Your task to perform on an android device: Find coffee shops on Maps Image 0: 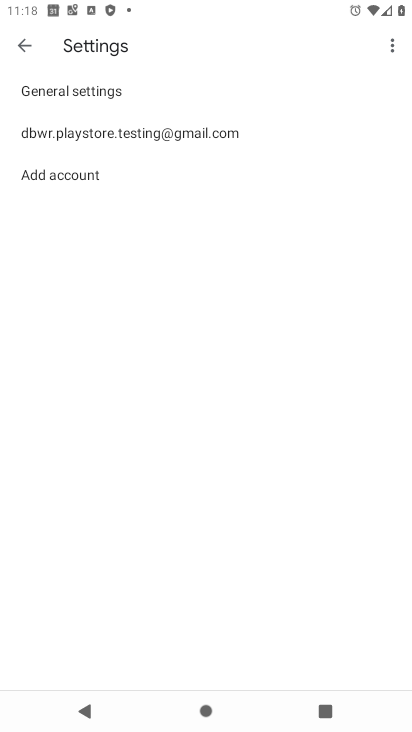
Step 0: press home button
Your task to perform on an android device: Find coffee shops on Maps Image 1: 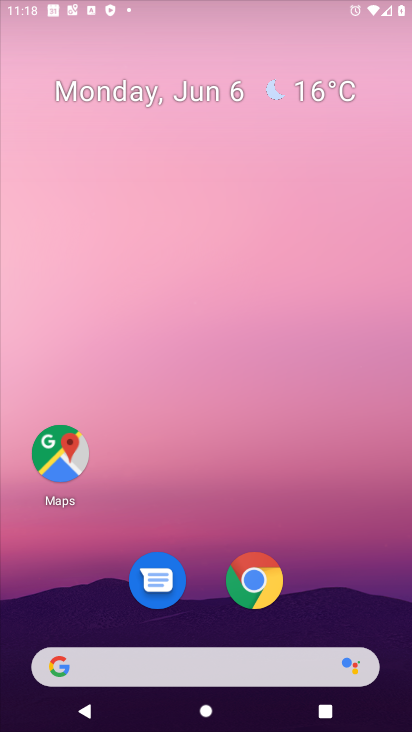
Step 1: drag from (339, 495) to (378, 37)
Your task to perform on an android device: Find coffee shops on Maps Image 2: 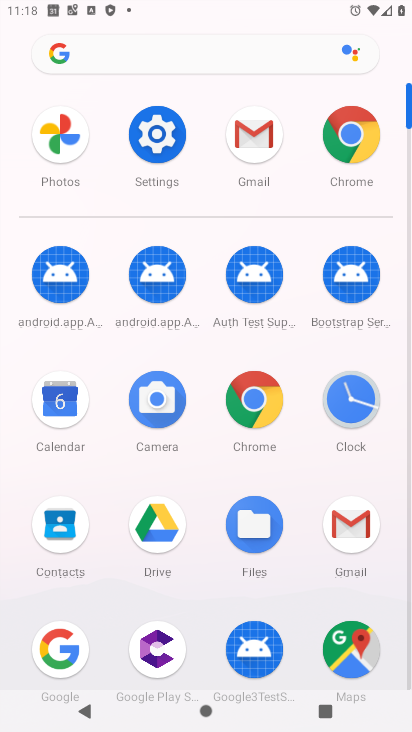
Step 2: click (330, 653)
Your task to perform on an android device: Find coffee shops on Maps Image 3: 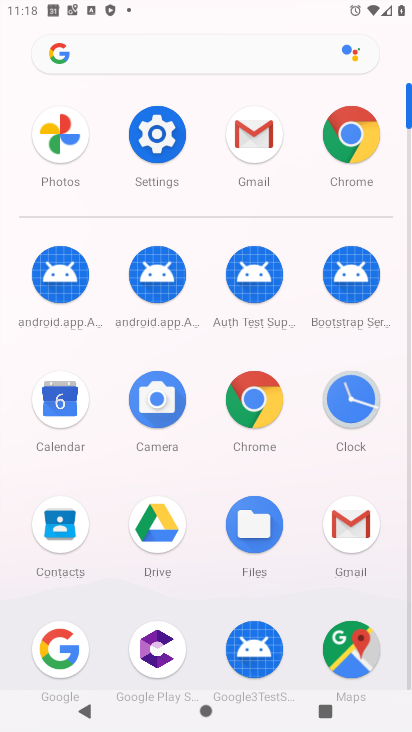
Step 3: click (345, 635)
Your task to perform on an android device: Find coffee shops on Maps Image 4: 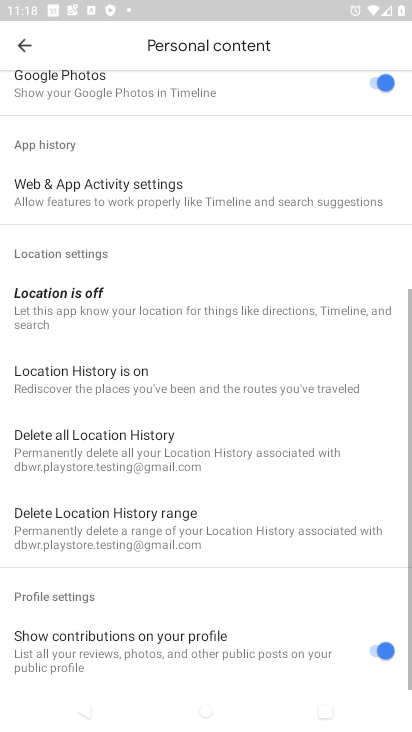
Step 4: click (18, 41)
Your task to perform on an android device: Find coffee shops on Maps Image 5: 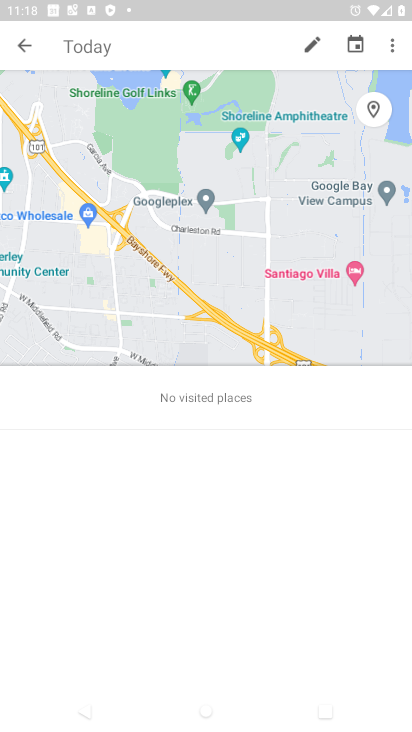
Step 5: click (12, 38)
Your task to perform on an android device: Find coffee shops on Maps Image 6: 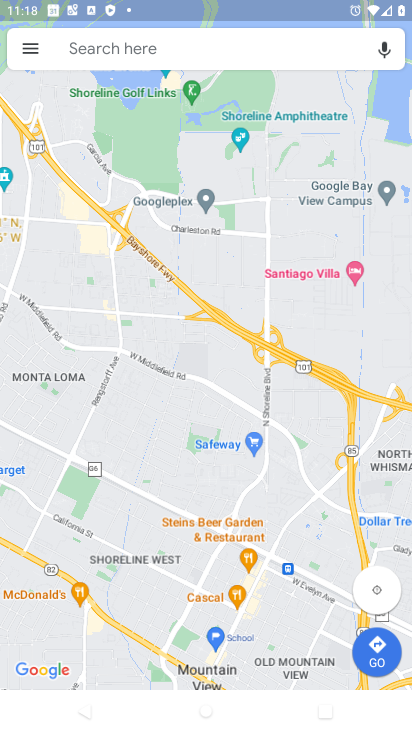
Step 6: click (128, 42)
Your task to perform on an android device: Find coffee shops on Maps Image 7: 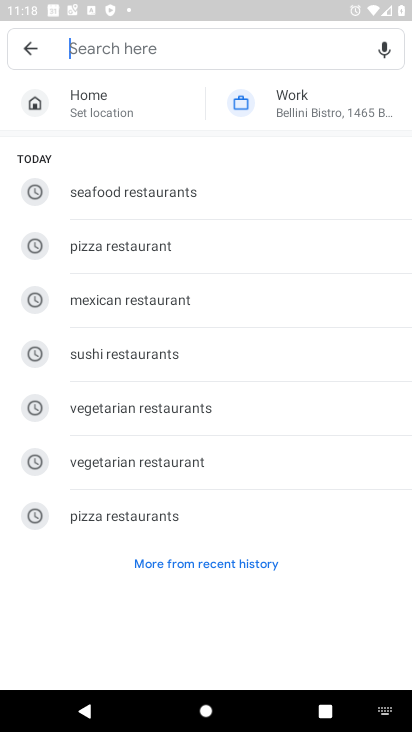
Step 7: type "coffee"
Your task to perform on an android device: Find coffee shops on Maps Image 8: 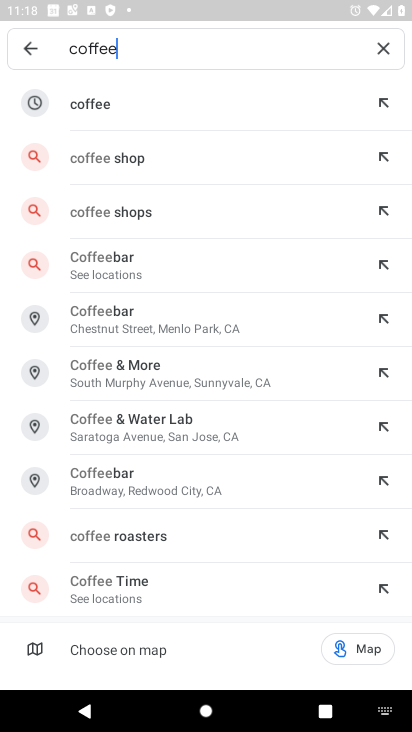
Step 8: click (128, 158)
Your task to perform on an android device: Find coffee shops on Maps Image 9: 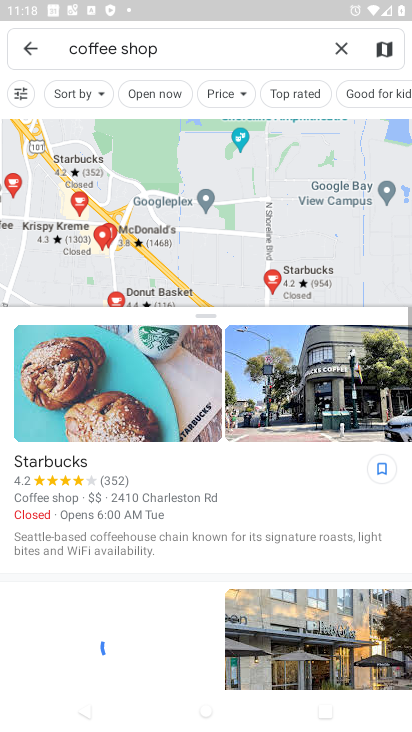
Step 9: task complete